Your task to perform on an android device: see tabs open on other devices in the chrome app Image 0: 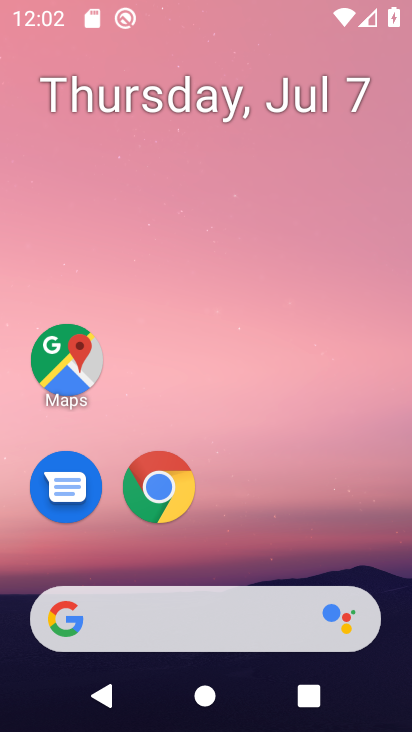
Step 0: drag from (351, 545) to (345, 206)
Your task to perform on an android device: see tabs open on other devices in the chrome app Image 1: 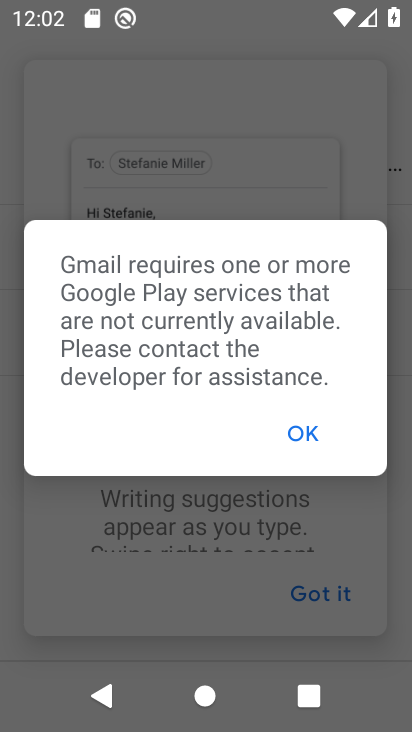
Step 1: press home button
Your task to perform on an android device: see tabs open on other devices in the chrome app Image 2: 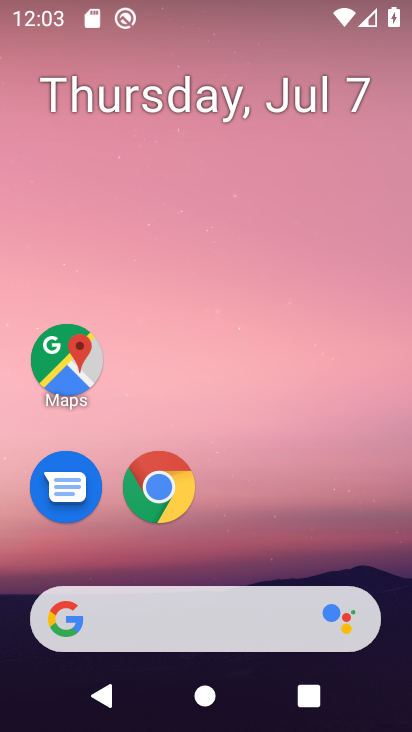
Step 2: drag from (301, 546) to (329, 160)
Your task to perform on an android device: see tabs open on other devices in the chrome app Image 3: 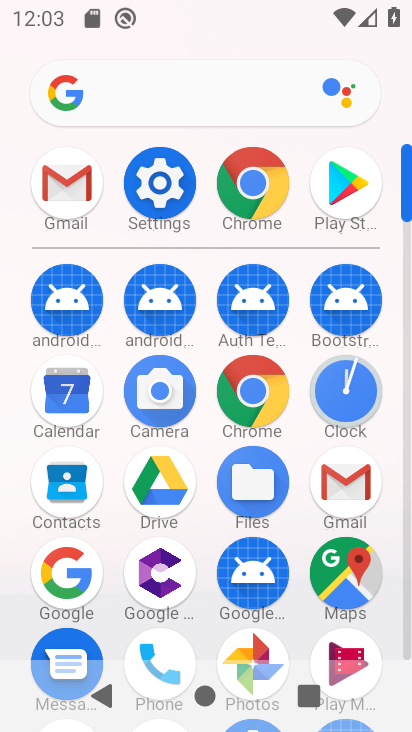
Step 3: click (258, 395)
Your task to perform on an android device: see tabs open on other devices in the chrome app Image 4: 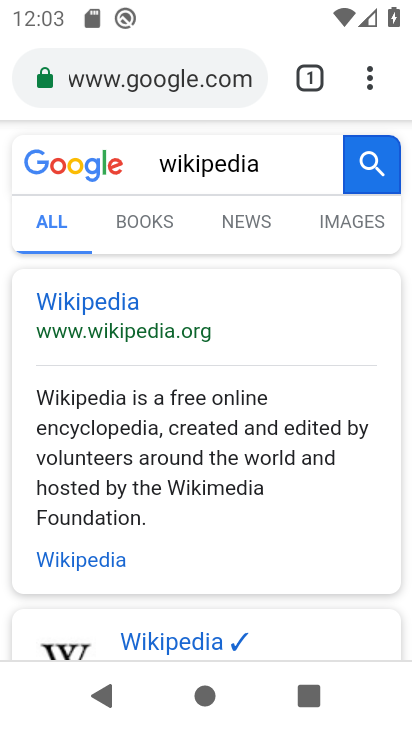
Step 4: click (372, 85)
Your task to perform on an android device: see tabs open on other devices in the chrome app Image 5: 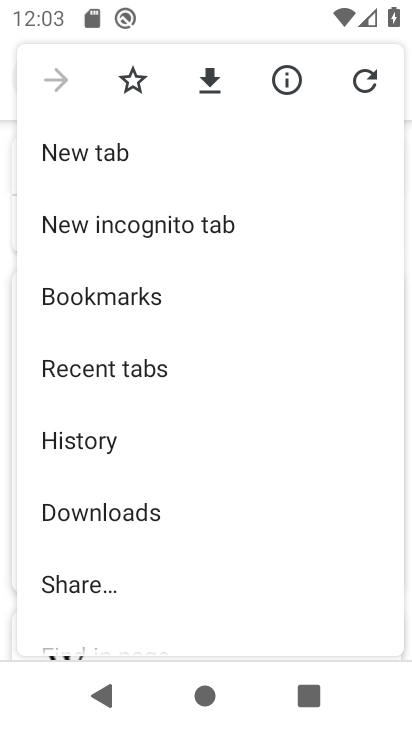
Step 5: click (159, 372)
Your task to perform on an android device: see tabs open on other devices in the chrome app Image 6: 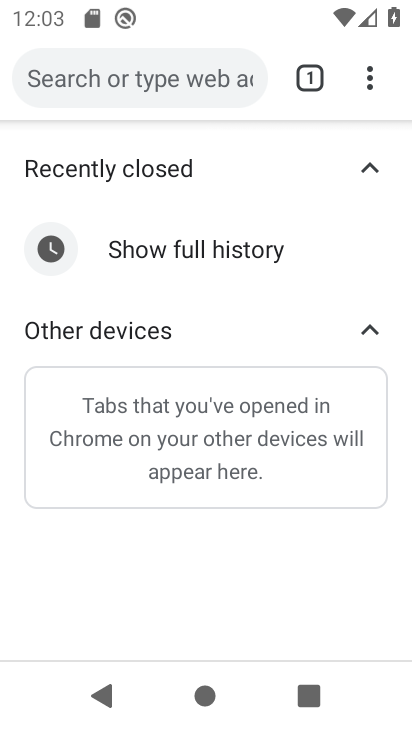
Step 6: click (311, 77)
Your task to perform on an android device: see tabs open on other devices in the chrome app Image 7: 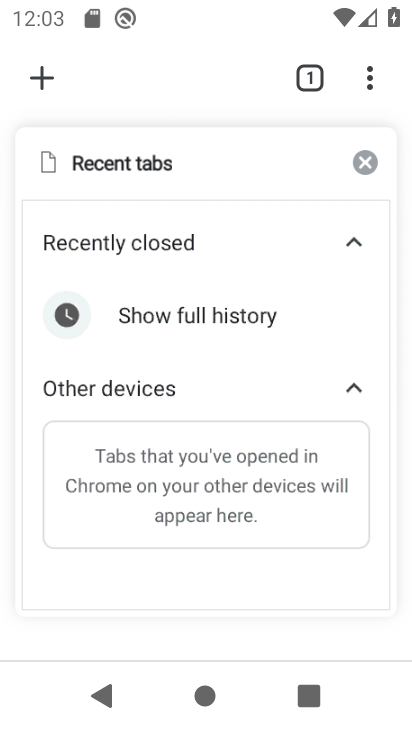
Step 7: task complete